Your task to perform on an android device: Open calendar and show me the first week of next month Image 0: 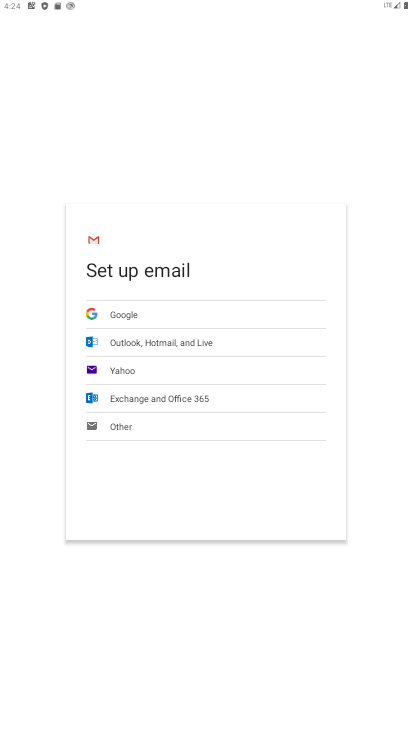
Step 0: press home button
Your task to perform on an android device: Open calendar and show me the first week of next month Image 1: 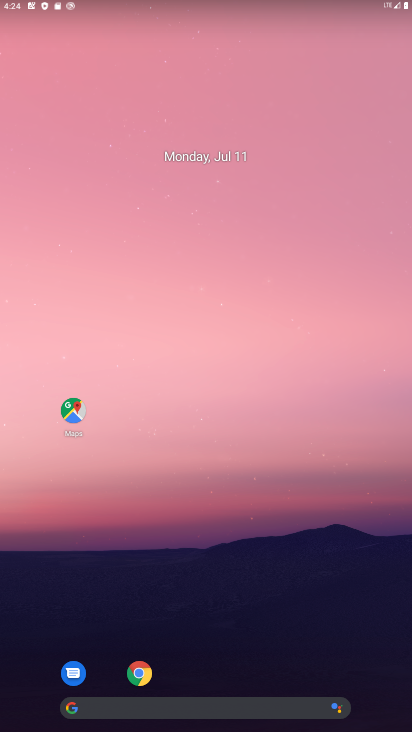
Step 1: drag from (201, 702) to (172, 140)
Your task to perform on an android device: Open calendar and show me the first week of next month Image 2: 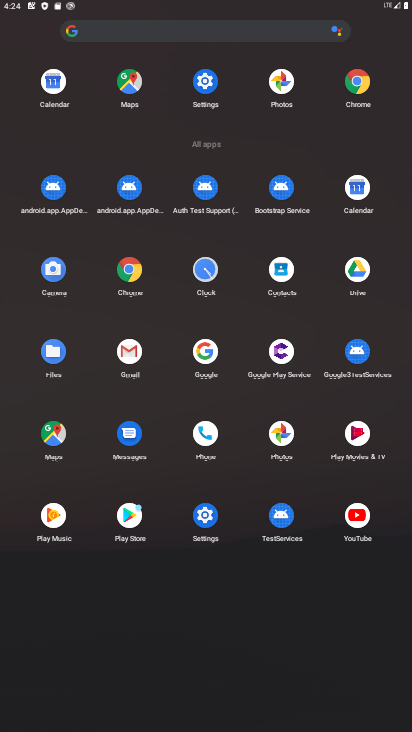
Step 2: click (358, 189)
Your task to perform on an android device: Open calendar and show me the first week of next month Image 3: 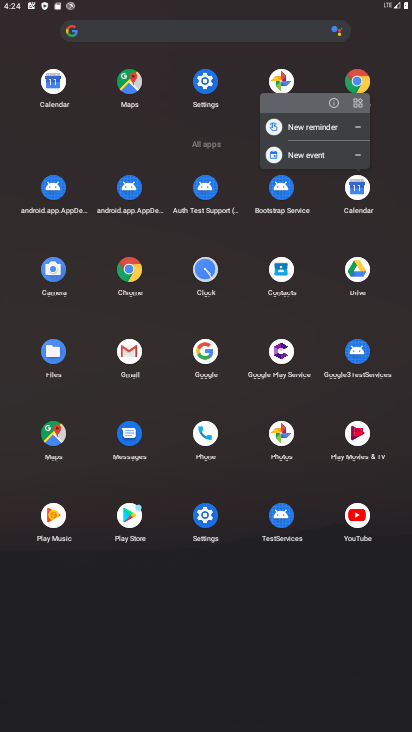
Step 3: click (358, 189)
Your task to perform on an android device: Open calendar and show me the first week of next month Image 4: 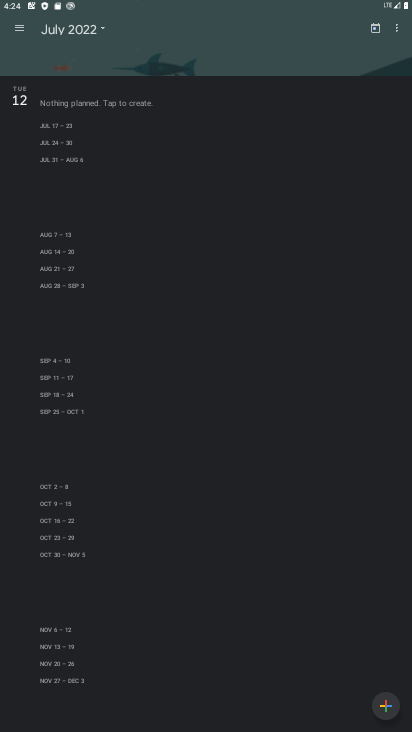
Step 4: click (378, 24)
Your task to perform on an android device: Open calendar and show me the first week of next month Image 5: 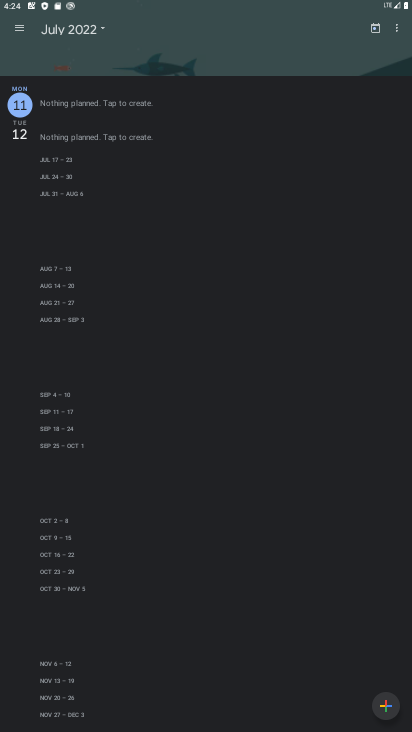
Step 5: click (102, 26)
Your task to perform on an android device: Open calendar and show me the first week of next month Image 6: 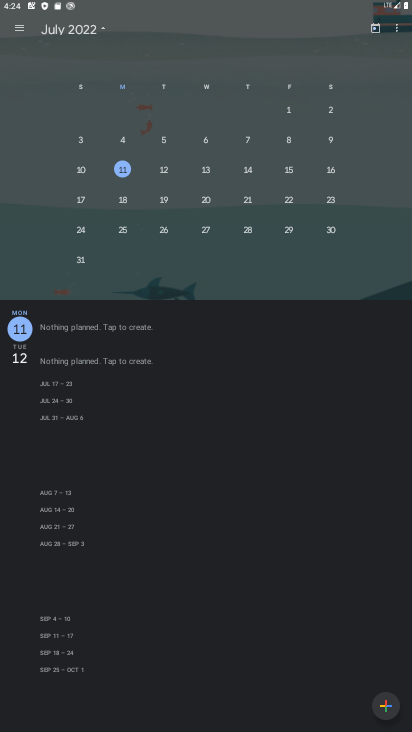
Step 6: drag from (344, 178) to (3, 230)
Your task to perform on an android device: Open calendar and show me the first week of next month Image 7: 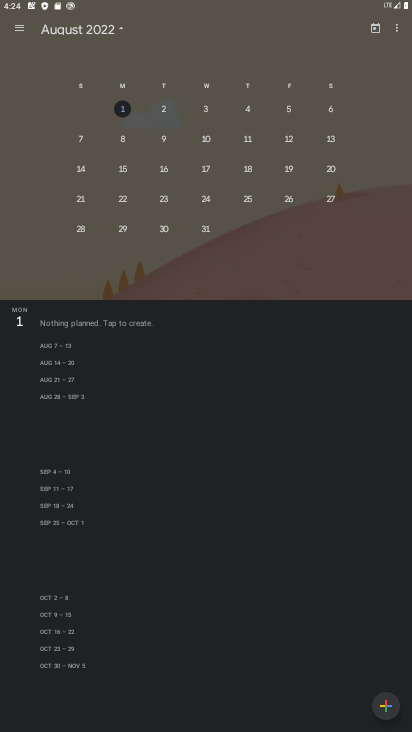
Step 7: click (124, 110)
Your task to perform on an android device: Open calendar and show me the first week of next month Image 8: 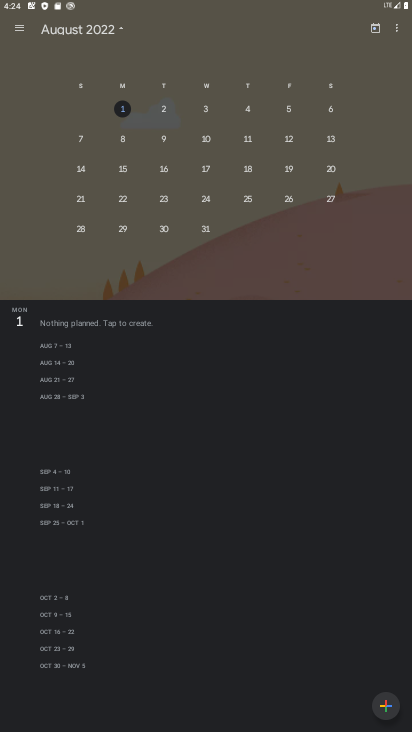
Step 8: click (28, 33)
Your task to perform on an android device: Open calendar and show me the first week of next month Image 9: 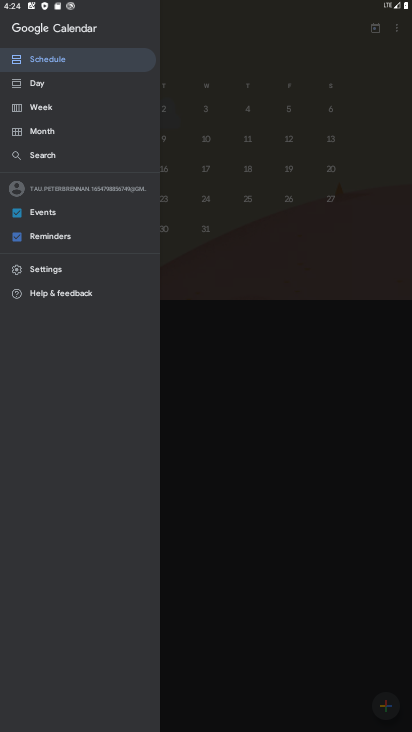
Step 9: click (53, 112)
Your task to perform on an android device: Open calendar and show me the first week of next month Image 10: 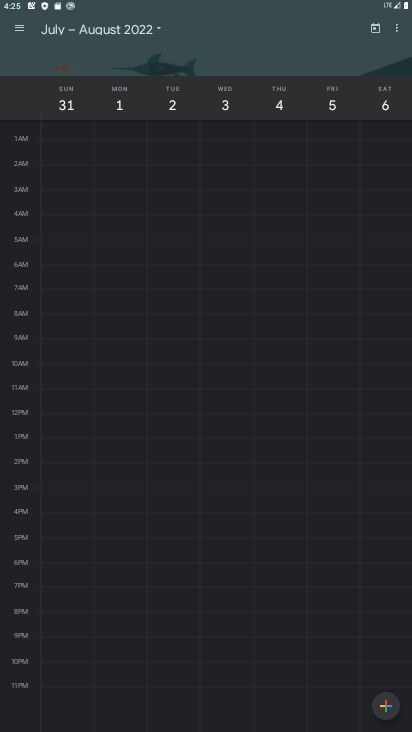
Step 10: task complete